Your task to perform on an android device: Open calendar and show me the second week of next month Image 0: 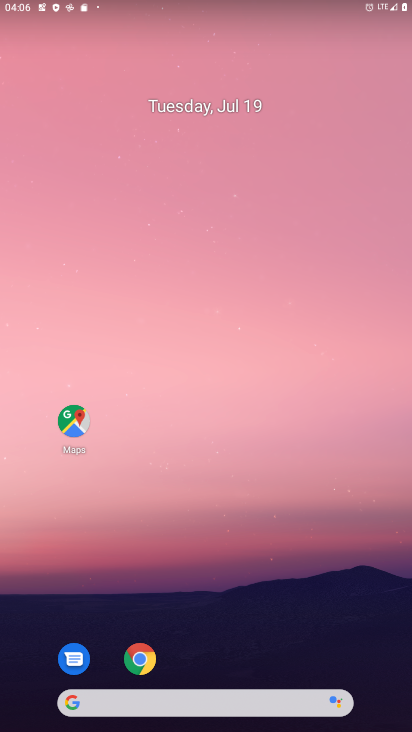
Step 0: press home button
Your task to perform on an android device: Open calendar and show me the second week of next month Image 1: 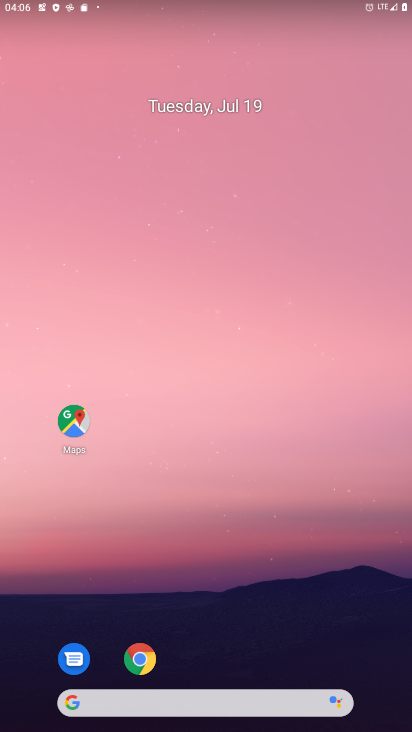
Step 1: drag from (301, 647) to (168, 17)
Your task to perform on an android device: Open calendar and show me the second week of next month Image 2: 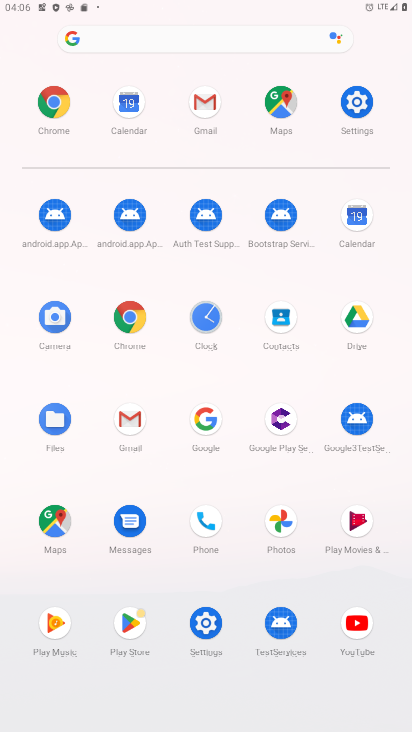
Step 2: click (337, 237)
Your task to perform on an android device: Open calendar and show me the second week of next month Image 3: 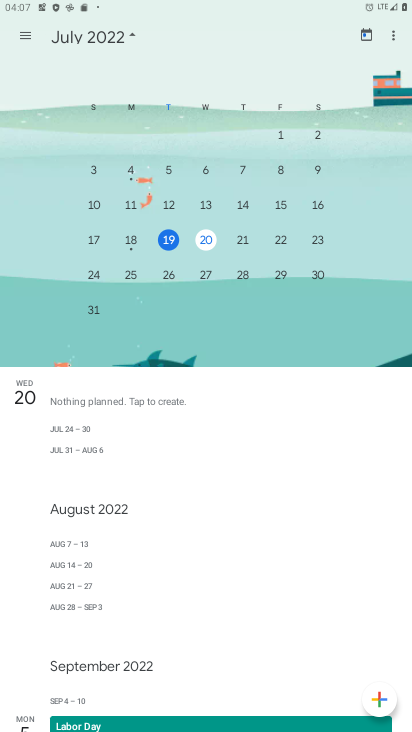
Step 3: drag from (314, 306) to (0, 314)
Your task to perform on an android device: Open calendar and show me the second week of next month Image 4: 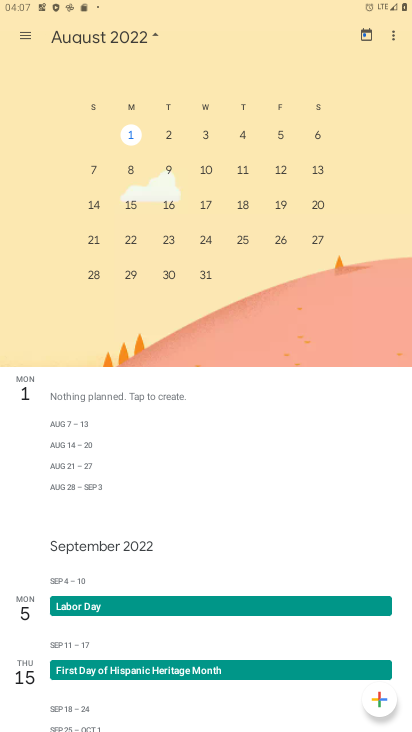
Step 4: click (125, 169)
Your task to perform on an android device: Open calendar and show me the second week of next month Image 5: 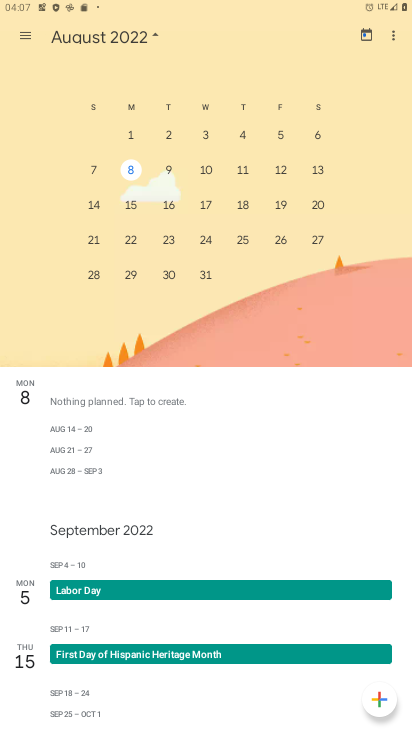
Step 5: task complete